Your task to perform on an android device: turn on wifi Image 0: 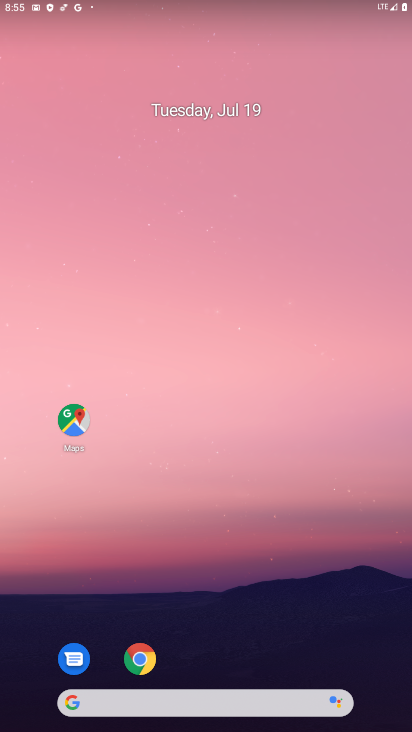
Step 0: drag from (226, 29) to (196, 329)
Your task to perform on an android device: turn on wifi Image 1: 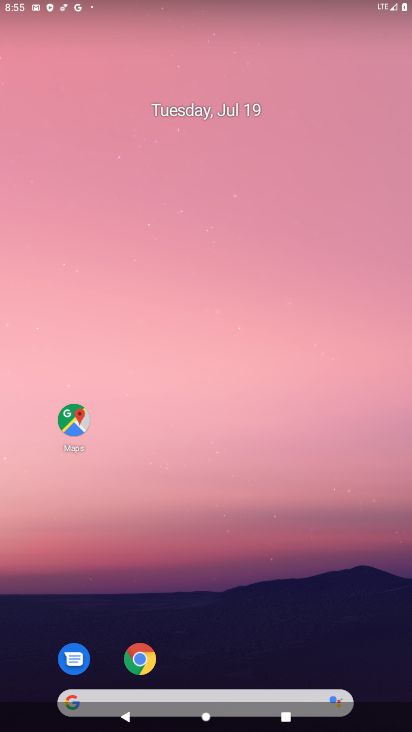
Step 1: drag from (103, 6) to (86, 314)
Your task to perform on an android device: turn on wifi Image 2: 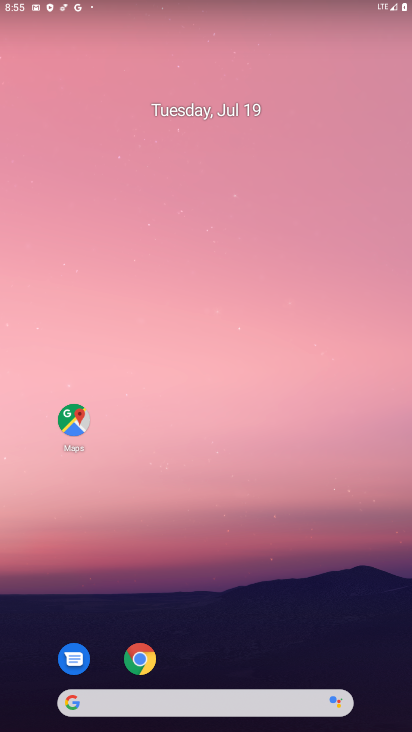
Step 2: drag from (120, 15) to (134, 725)
Your task to perform on an android device: turn on wifi Image 3: 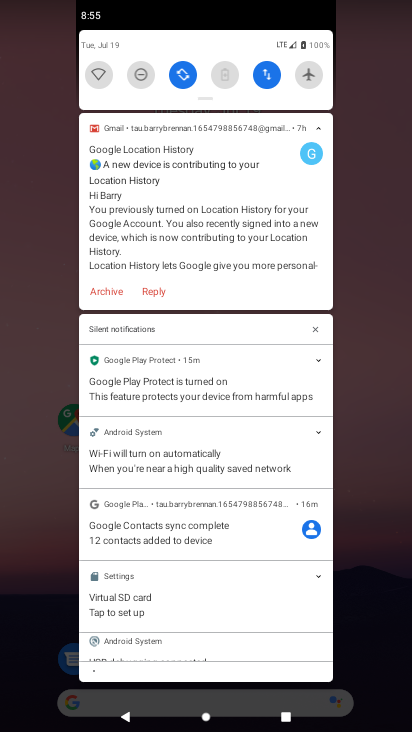
Step 3: click (99, 66)
Your task to perform on an android device: turn on wifi Image 4: 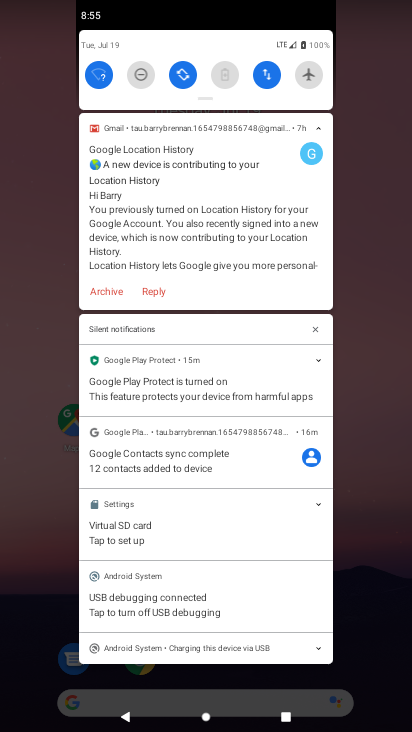
Step 4: task complete